Your task to perform on an android device: open wifi settings Image 0: 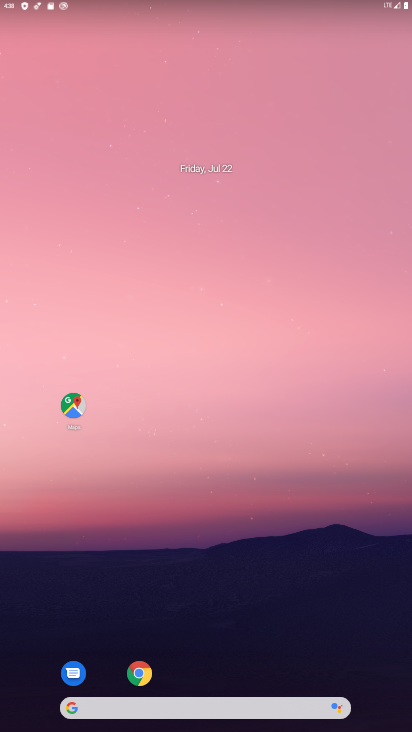
Step 0: press home button
Your task to perform on an android device: open wifi settings Image 1: 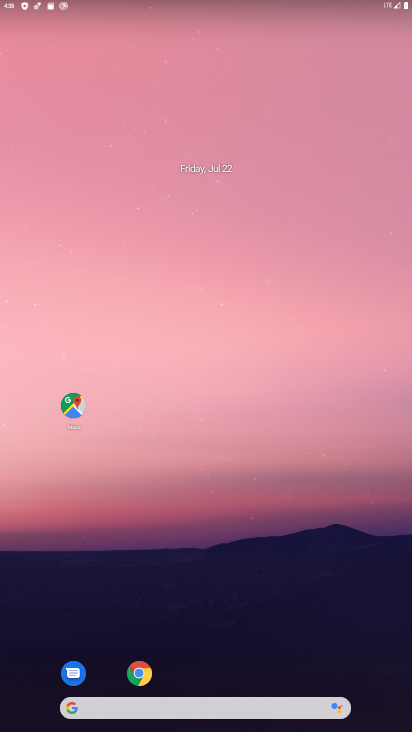
Step 1: drag from (257, 566) to (285, 102)
Your task to perform on an android device: open wifi settings Image 2: 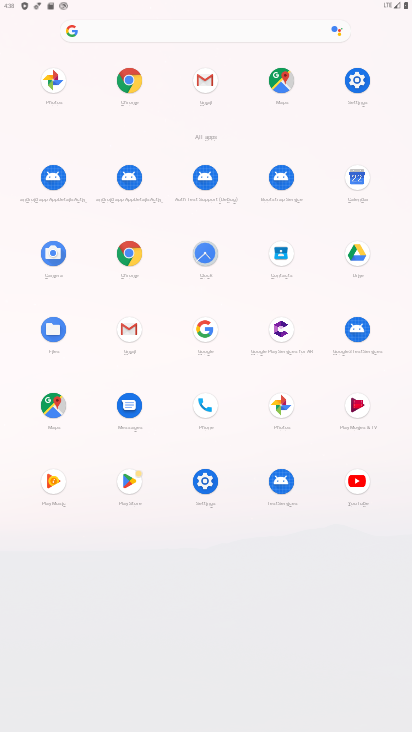
Step 2: click (366, 74)
Your task to perform on an android device: open wifi settings Image 3: 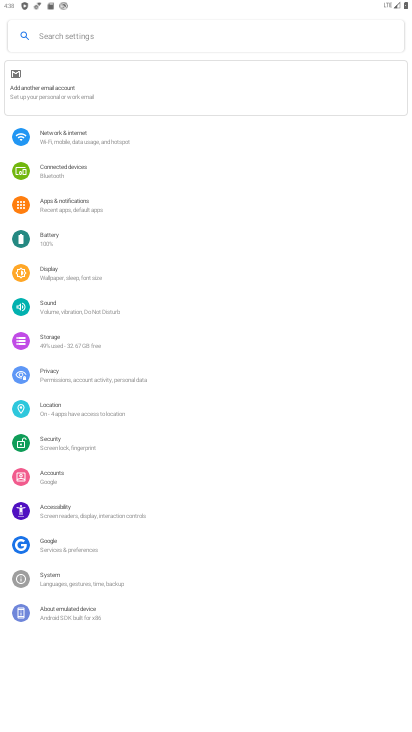
Step 3: click (78, 128)
Your task to perform on an android device: open wifi settings Image 4: 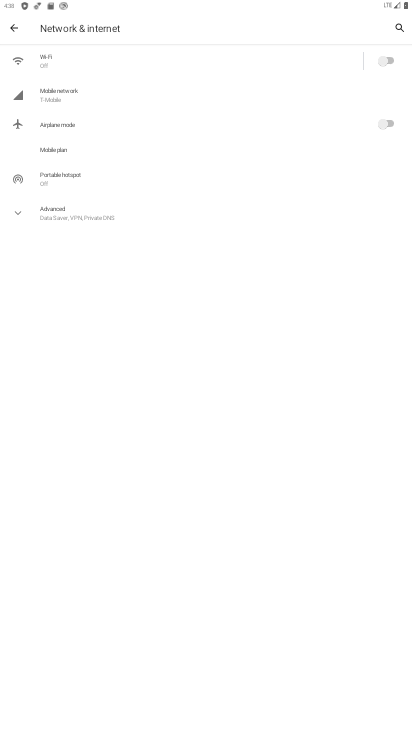
Step 4: click (93, 60)
Your task to perform on an android device: open wifi settings Image 5: 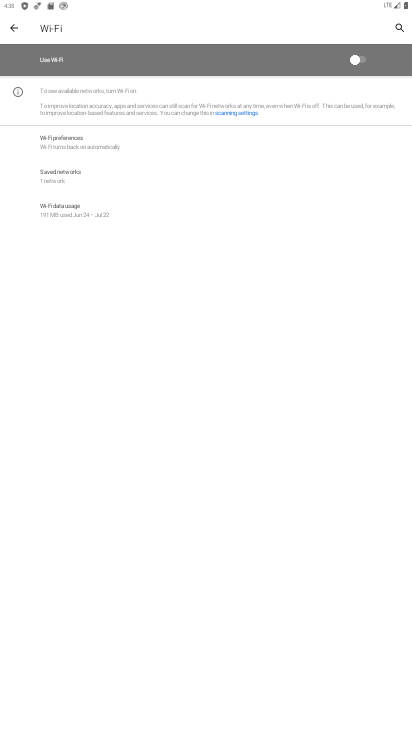
Step 5: task complete